Your task to perform on an android device: Search for Mexican restaurants on Maps Image 0: 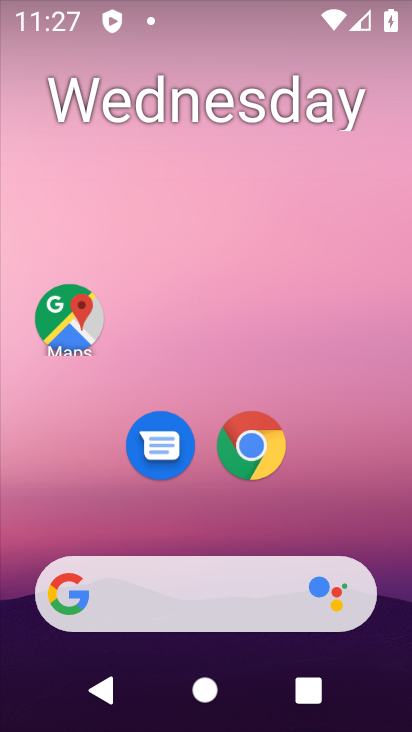
Step 0: click (72, 310)
Your task to perform on an android device: Search for Mexican restaurants on Maps Image 1: 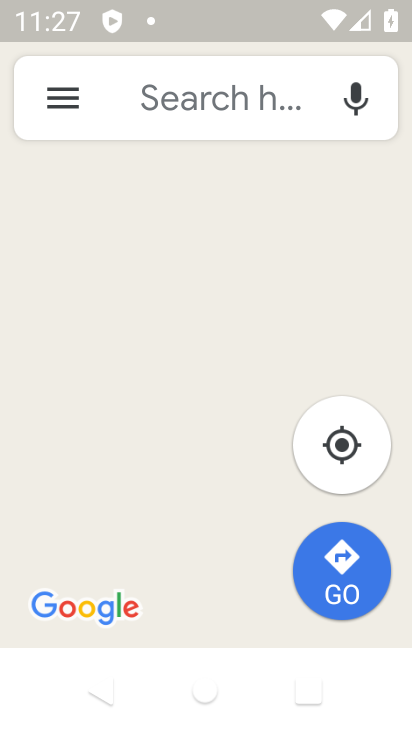
Step 1: click (200, 109)
Your task to perform on an android device: Search for Mexican restaurants on Maps Image 2: 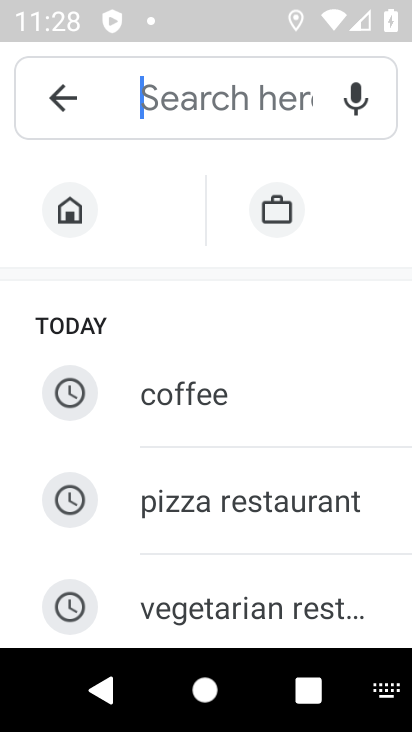
Step 2: type "mexican restaurant"
Your task to perform on an android device: Search for Mexican restaurants on Maps Image 3: 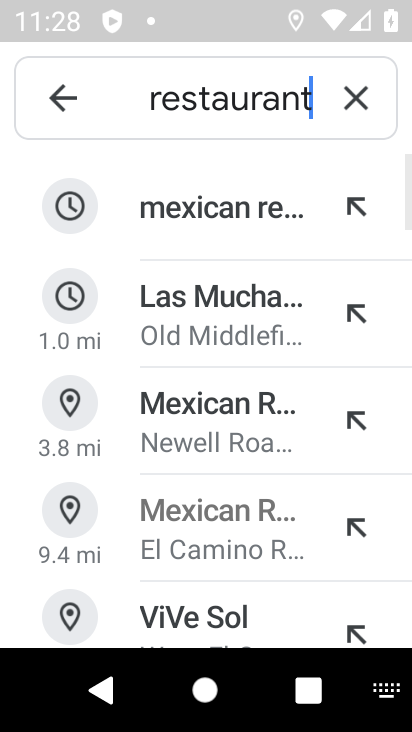
Step 3: click (169, 207)
Your task to perform on an android device: Search for Mexican restaurants on Maps Image 4: 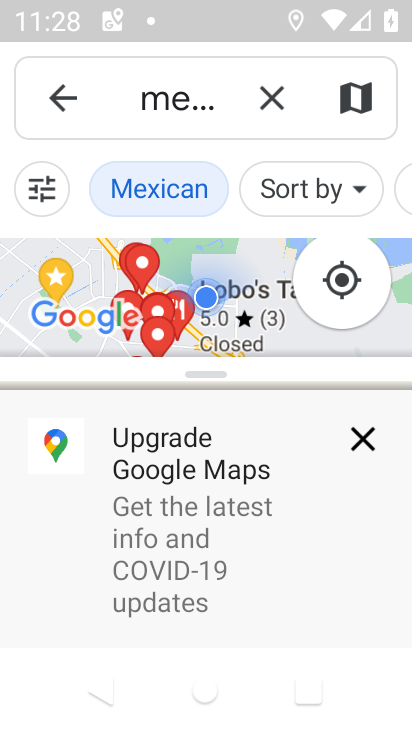
Step 4: click (353, 447)
Your task to perform on an android device: Search for Mexican restaurants on Maps Image 5: 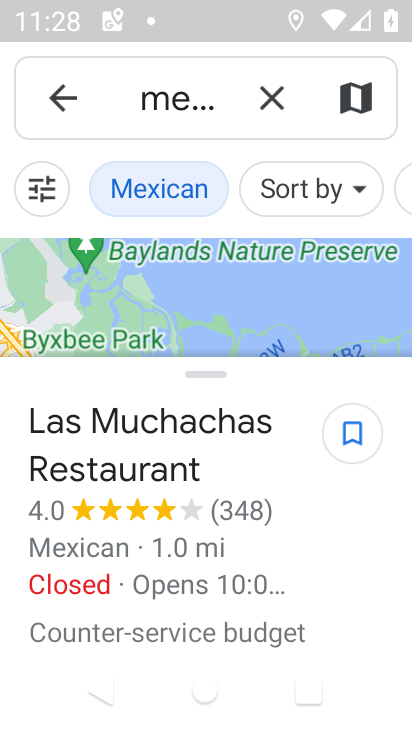
Step 5: task complete